Your task to perform on an android device: turn off translation in the chrome app Image 0: 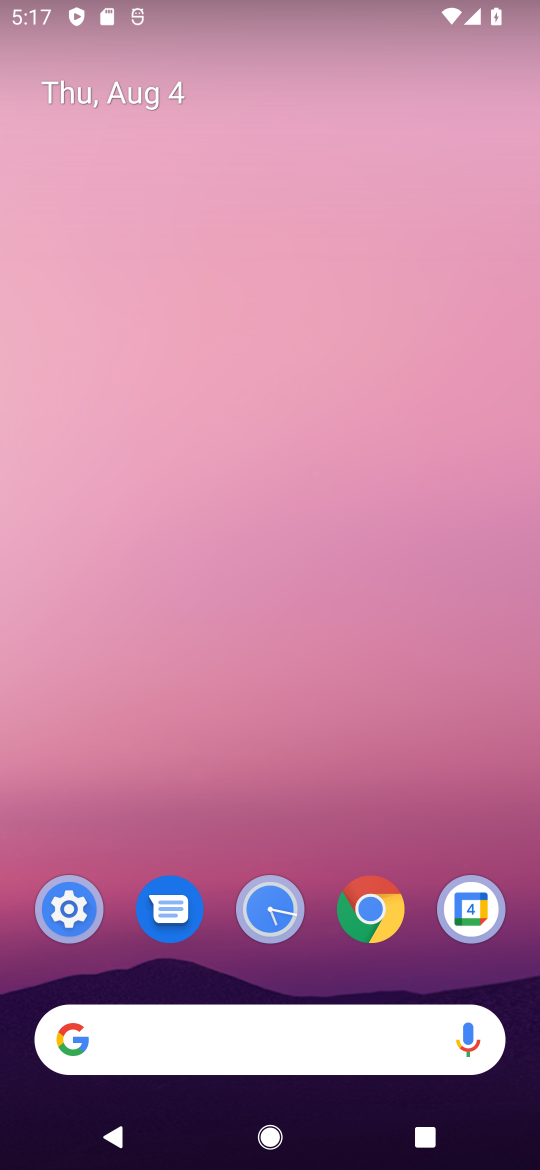
Step 0: click (370, 908)
Your task to perform on an android device: turn off translation in the chrome app Image 1: 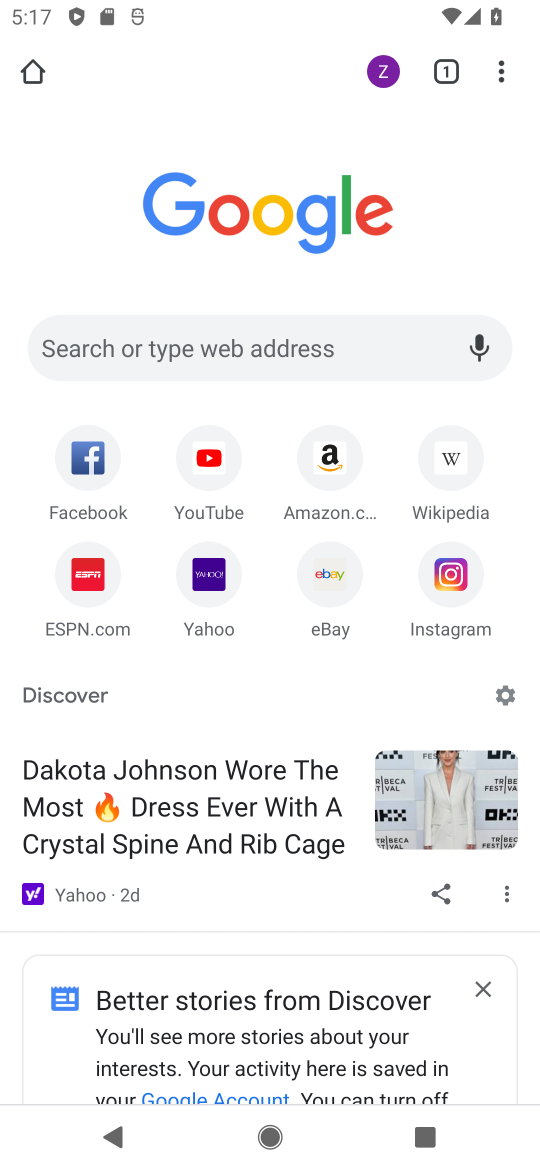
Step 1: click (502, 75)
Your task to perform on an android device: turn off translation in the chrome app Image 2: 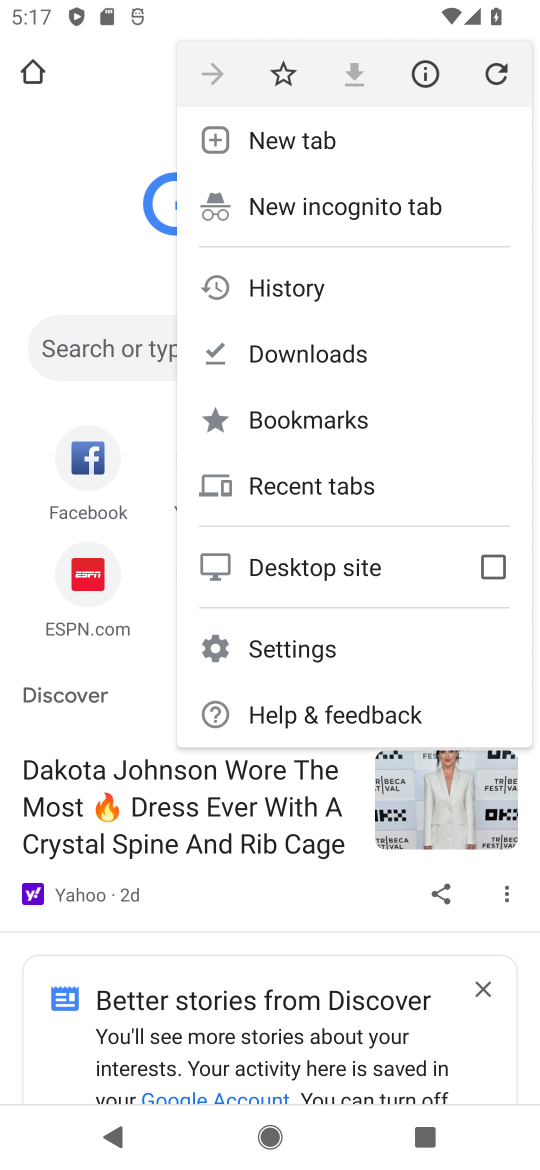
Step 2: click (295, 650)
Your task to perform on an android device: turn off translation in the chrome app Image 3: 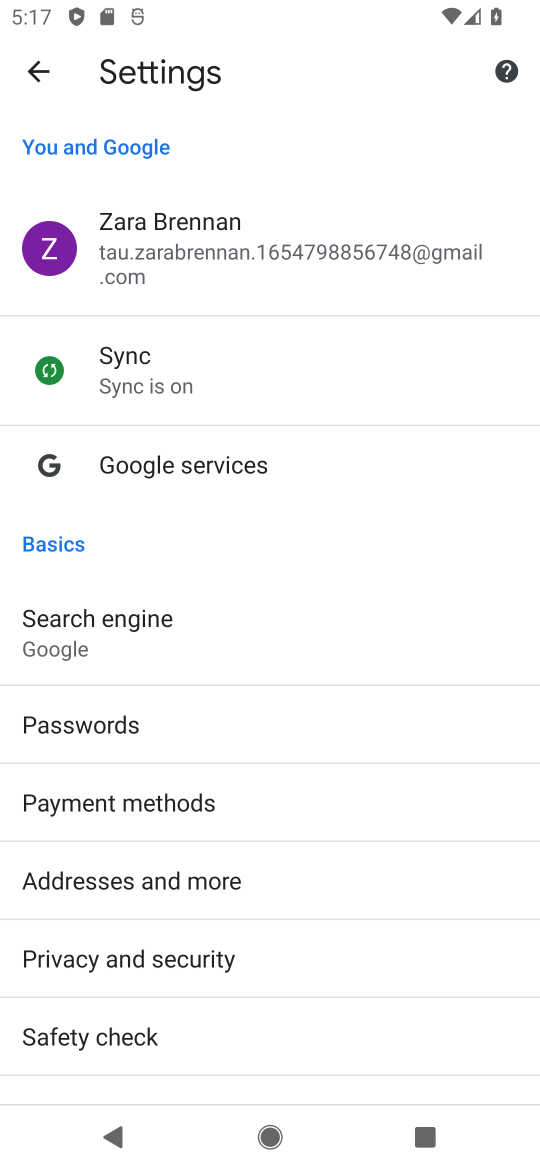
Step 3: drag from (112, 901) to (131, 586)
Your task to perform on an android device: turn off translation in the chrome app Image 4: 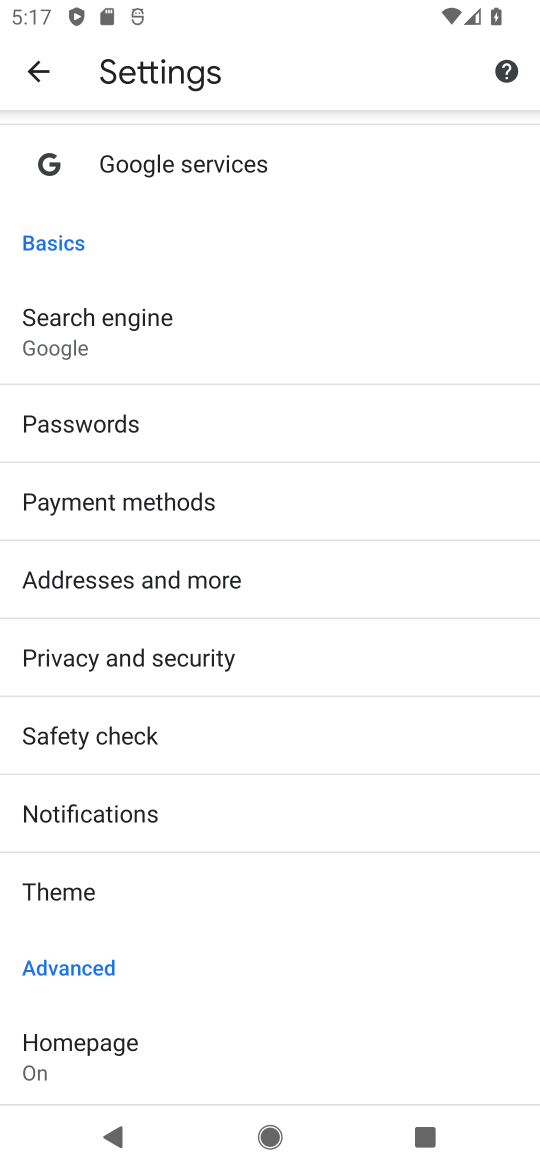
Step 4: drag from (69, 911) to (228, 466)
Your task to perform on an android device: turn off translation in the chrome app Image 5: 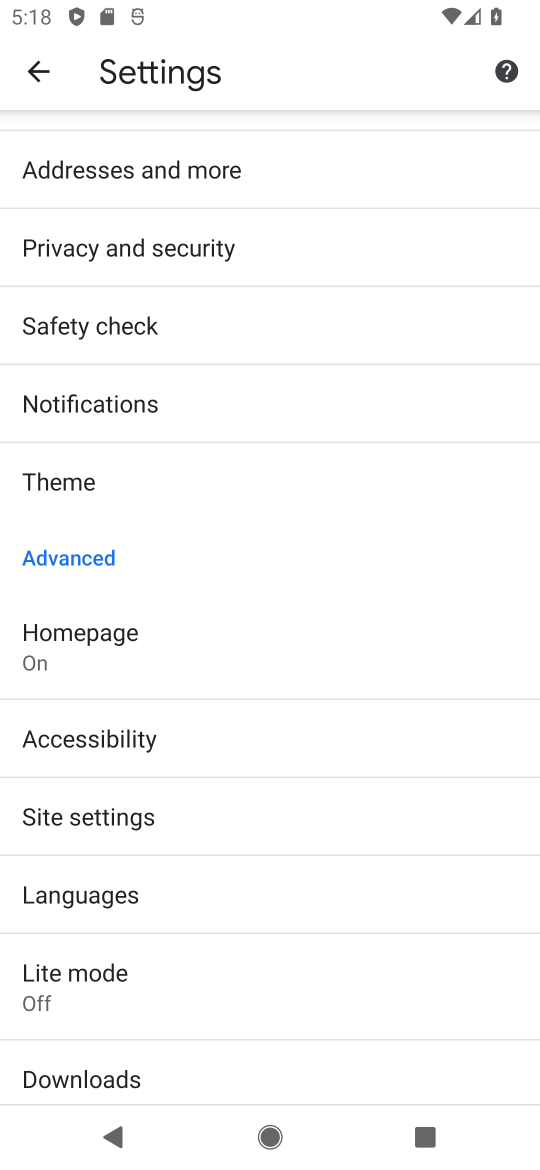
Step 5: click (107, 902)
Your task to perform on an android device: turn off translation in the chrome app Image 6: 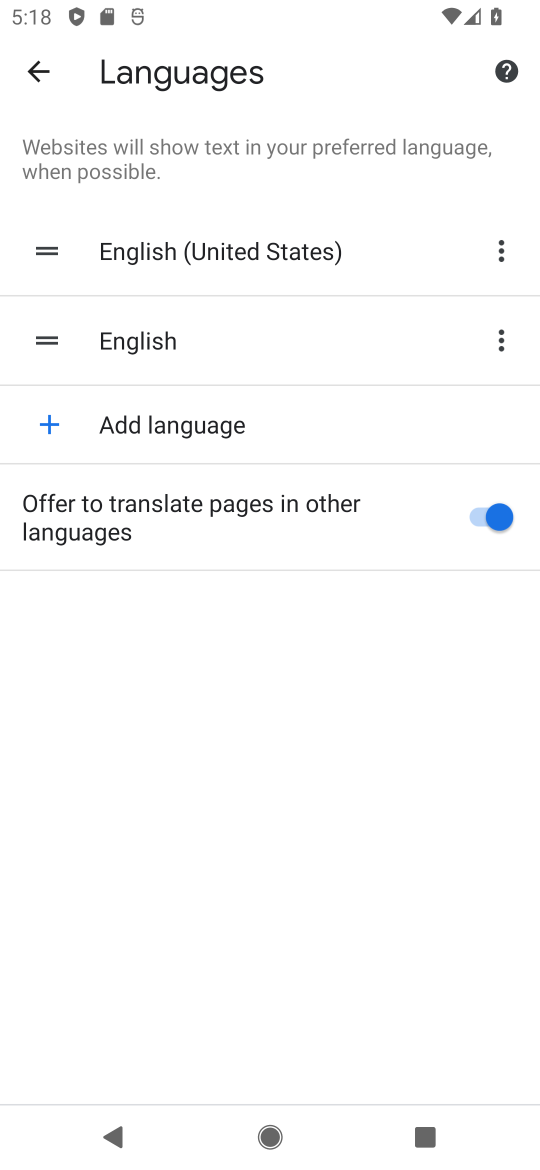
Step 6: click (476, 525)
Your task to perform on an android device: turn off translation in the chrome app Image 7: 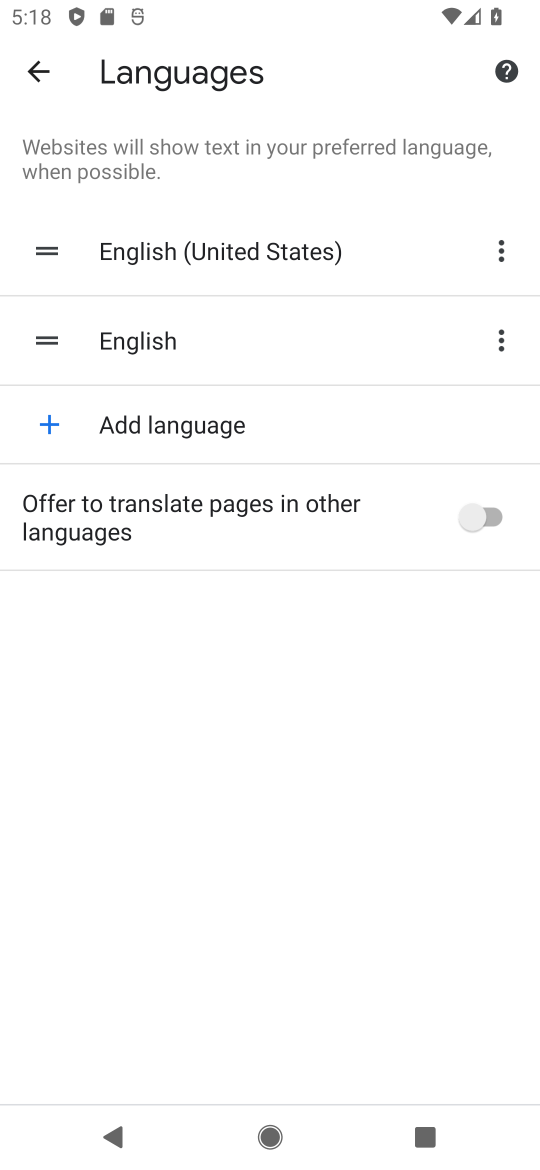
Step 7: task complete